Your task to perform on an android device: What's the weather going to be tomorrow? Image 0: 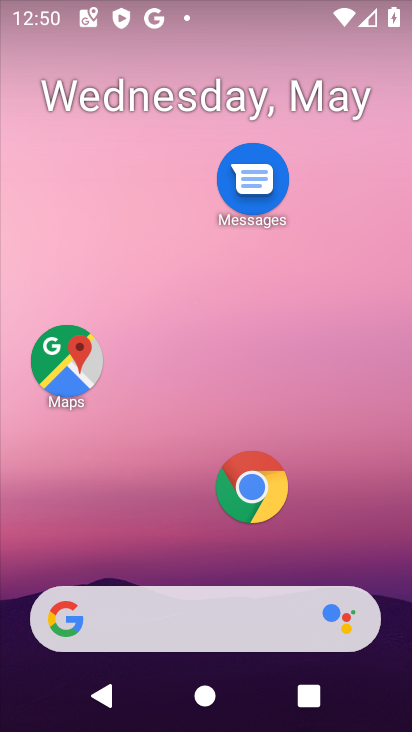
Step 0: click (188, 610)
Your task to perform on an android device: What's the weather going to be tomorrow? Image 1: 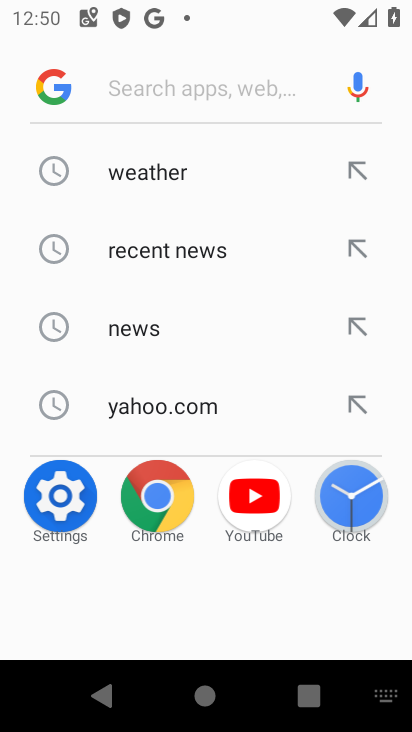
Step 1: click (174, 169)
Your task to perform on an android device: What's the weather going to be tomorrow? Image 2: 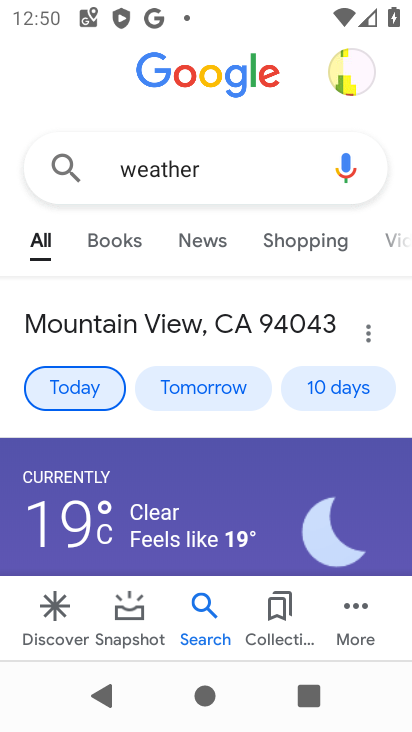
Step 2: drag from (154, 425) to (175, 298)
Your task to perform on an android device: What's the weather going to be tomorrow? Image 3: 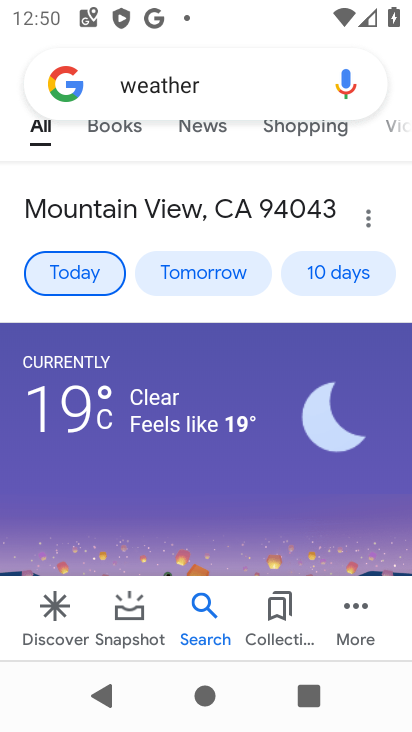
Step 3: click (193, 269)
Your task to perform on an android device: What's the weather going to be tomorrow? Image 4: 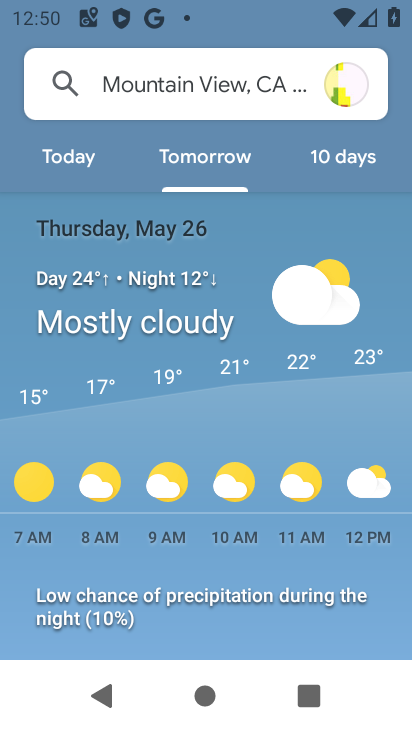
Step 4: task complete